Your task to perform on an android device: open chrome and create a bookmark for the current page Image 0: 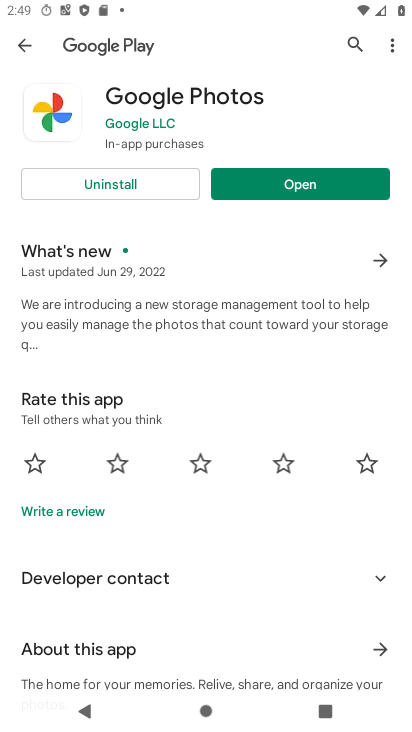
Step 0: press home button
Your task to perform on an android device: open chrome and create a bookmark for the current page Image 1: 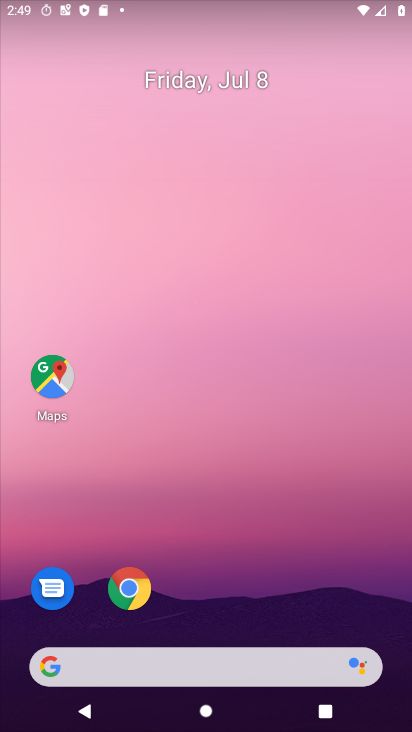
Step 1: drag from (271, 623) to (268, 167)
Your task to perform on an android device: open chrome and create a bookmark for the current page Image 2: 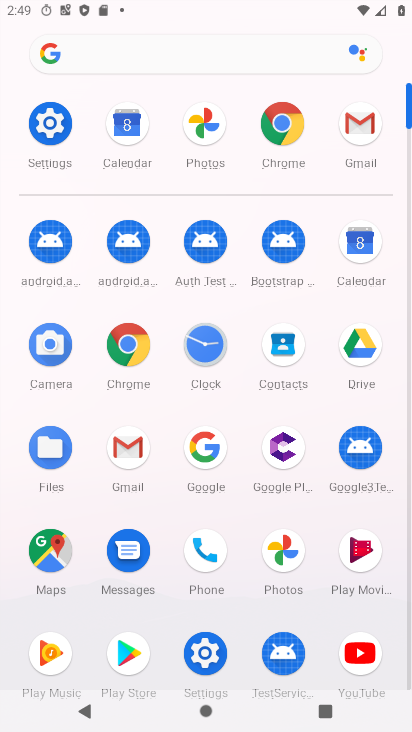
Step 2: click (287, 134)
Your task to perform on an android device: open chrome and create a bookmark for the current page Image 3: 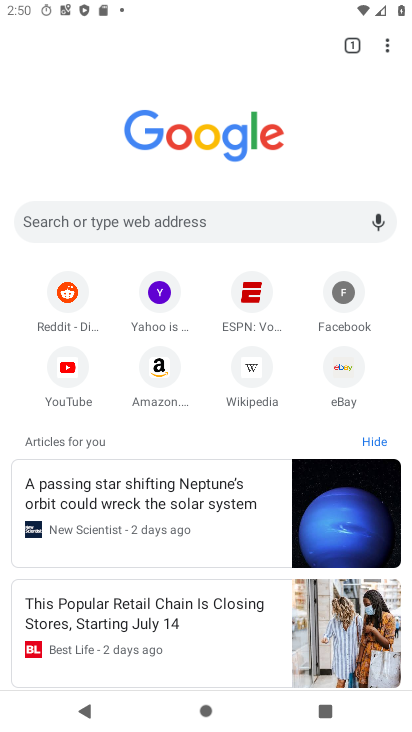
Step 3: task complete